Your task to perform on an android device: open a bookmark in the chrome app Image 0: 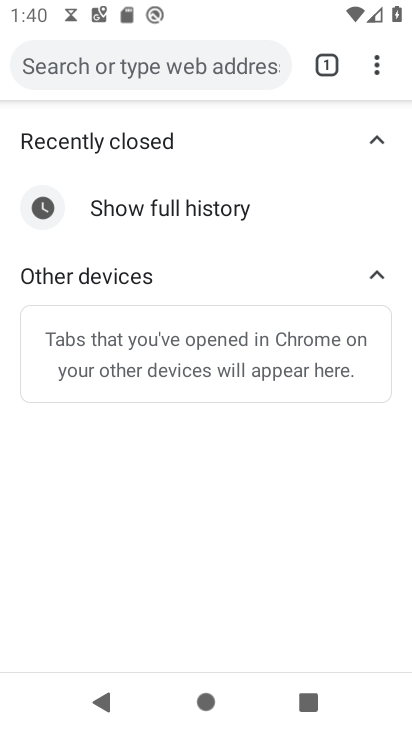
Step 0: click (367, 66)
Your task to perform on an android device: open a bookmark in the chrome app Image 1: 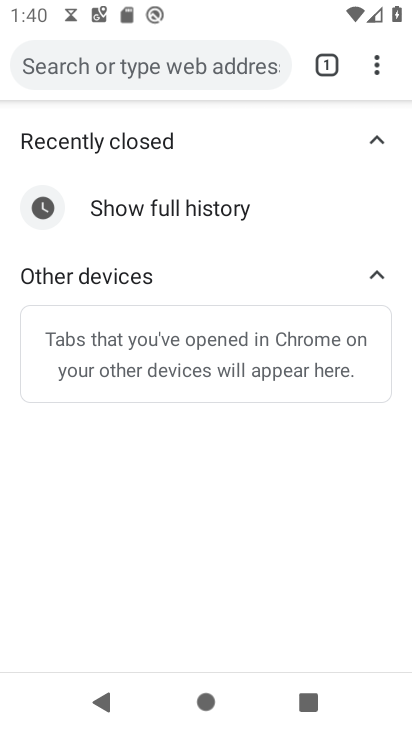
Step 1: drag from (367, 66) to (191, 257)
Your task to perform on an android device: open a bookmark in the chrome app Image 2: 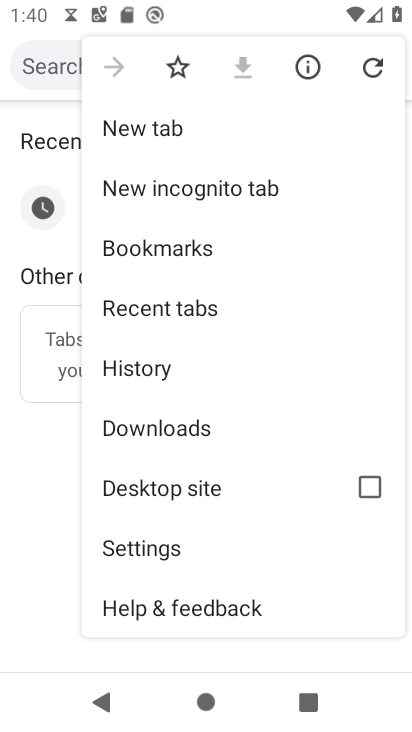
Step 2: click (191, 257)
Your task to perform on an android device: open a bookmark in the chrome app Image 3: 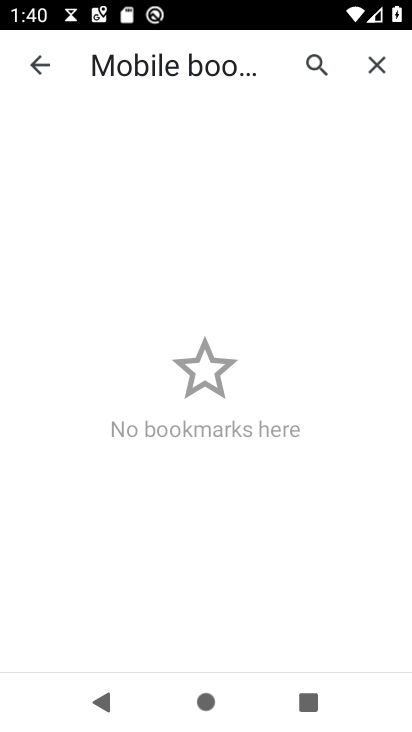
Step 3: task complete